Your task to perform on an android device: Show me recent news Image 0: 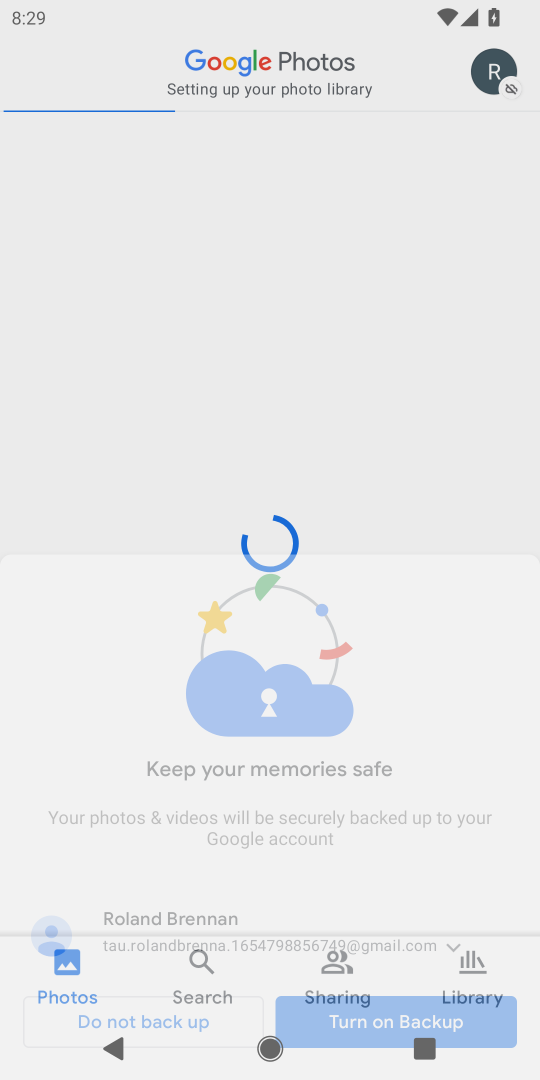
Step 0: press home button
Your task to perform on an android device: Show me recent news Image 1: 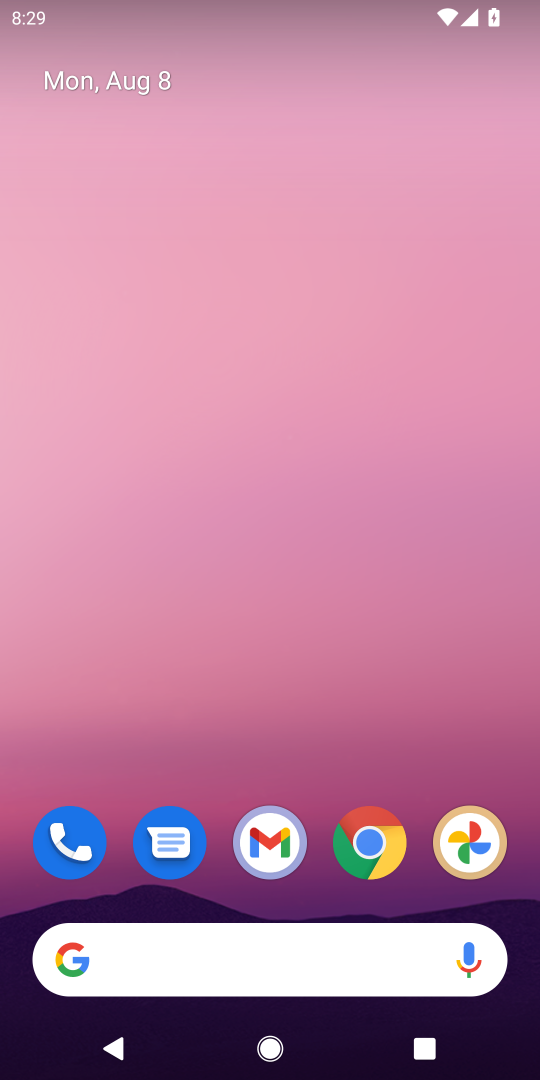
Step 1: click (217, 957)
Your task to perform on an android device: Show me recent news Image 2: 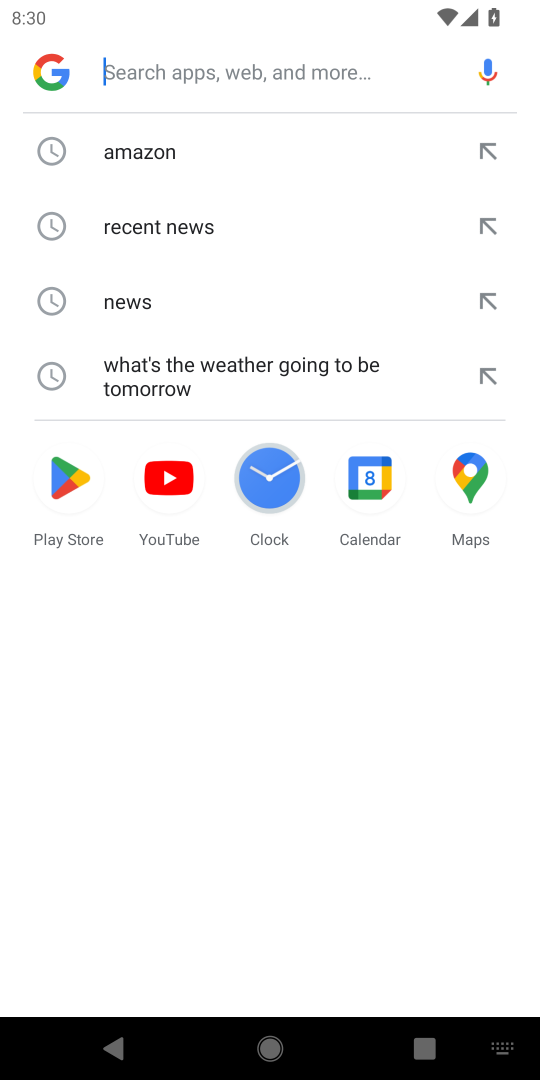
Step 2: type "recent news"
Your task to perform on an android device: Show me recent news Image 3: 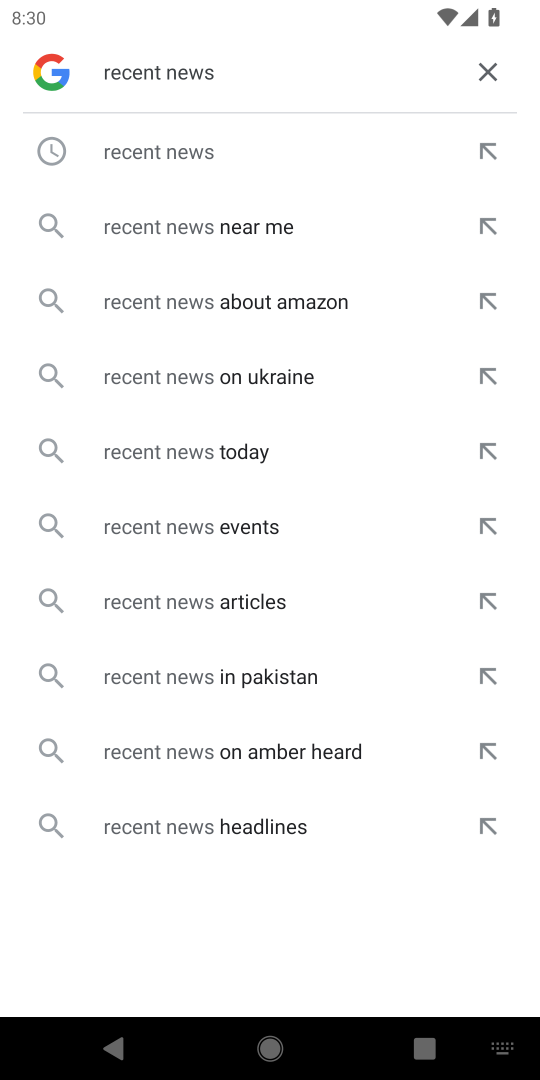
Step 3: click (151, 142)
Your task to perform on an android device: Show me recent news Image 4: 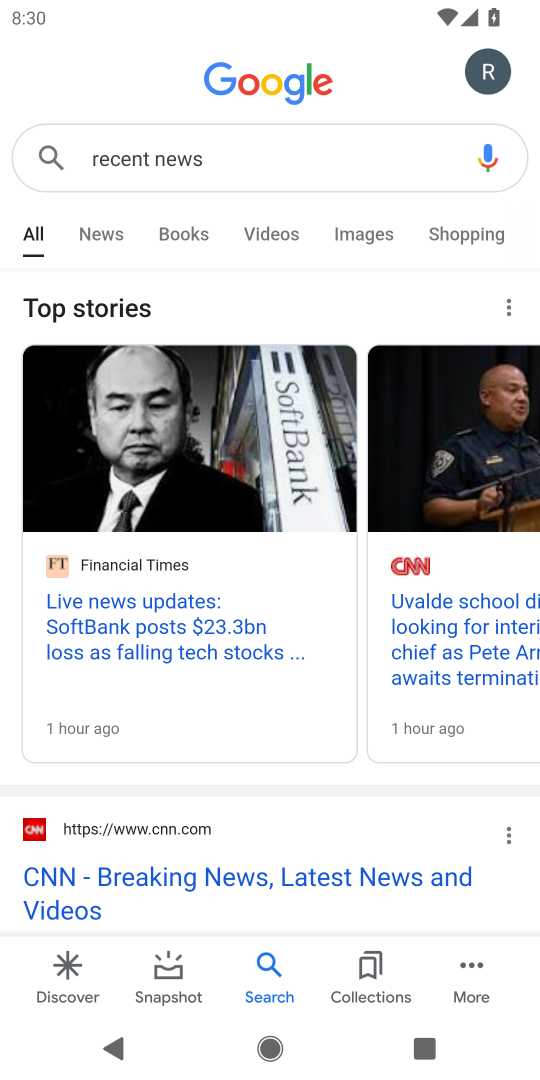
Step 4: task complete